Your task to perform on an android device: open chrome privacy settings Image 0: 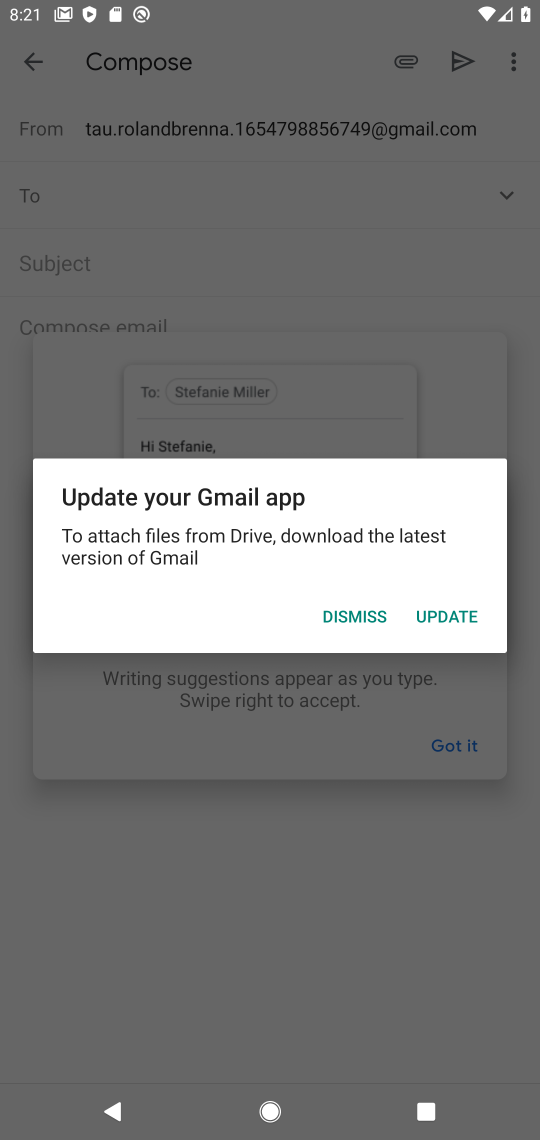
Step 0: press back button
Your task to perform on an android device: open chrome privacy settings Image 1: 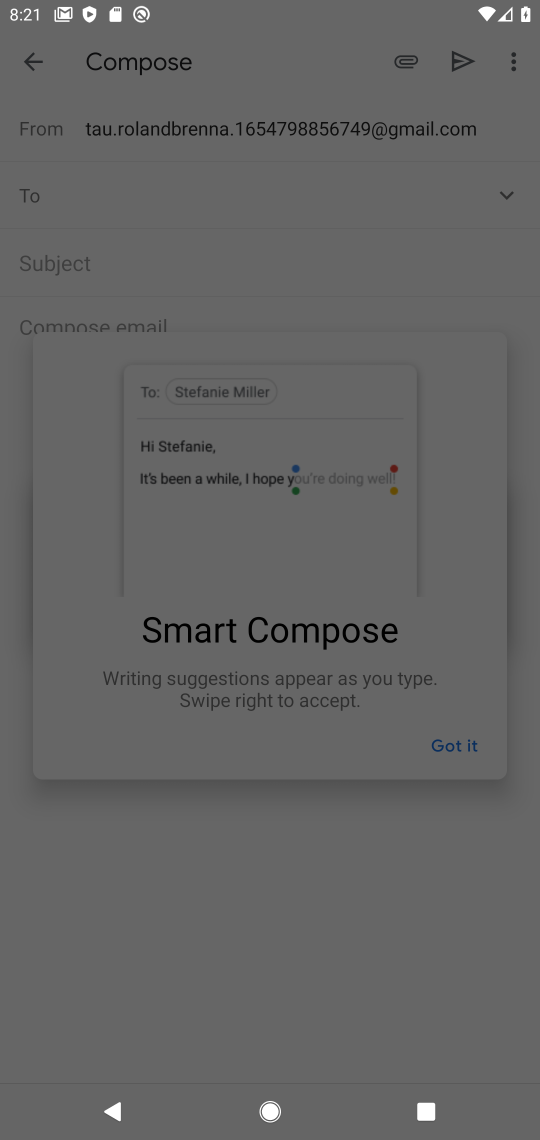
Step 1: press home button
Your task to perform on an android device: open chrome privacy settings Image 2: 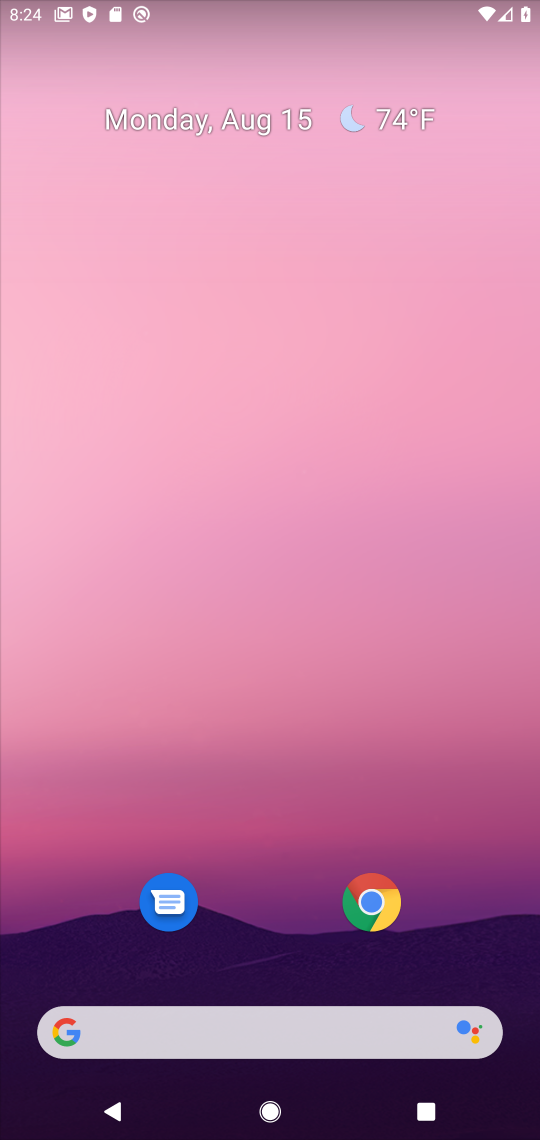
Step 2: drag from (522, 960) to (192, 41)
Your task to perform on an android device: open chrome privacy settings Image 3: 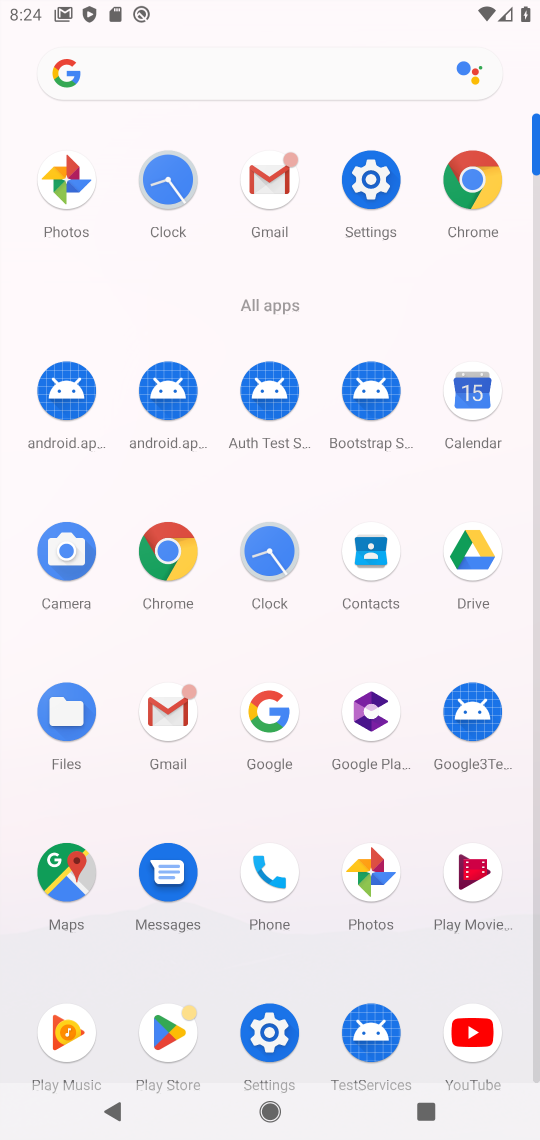
Step 3: click (173, 550)
Your task to perform on an android device: open chrome privacy settings Image 4: 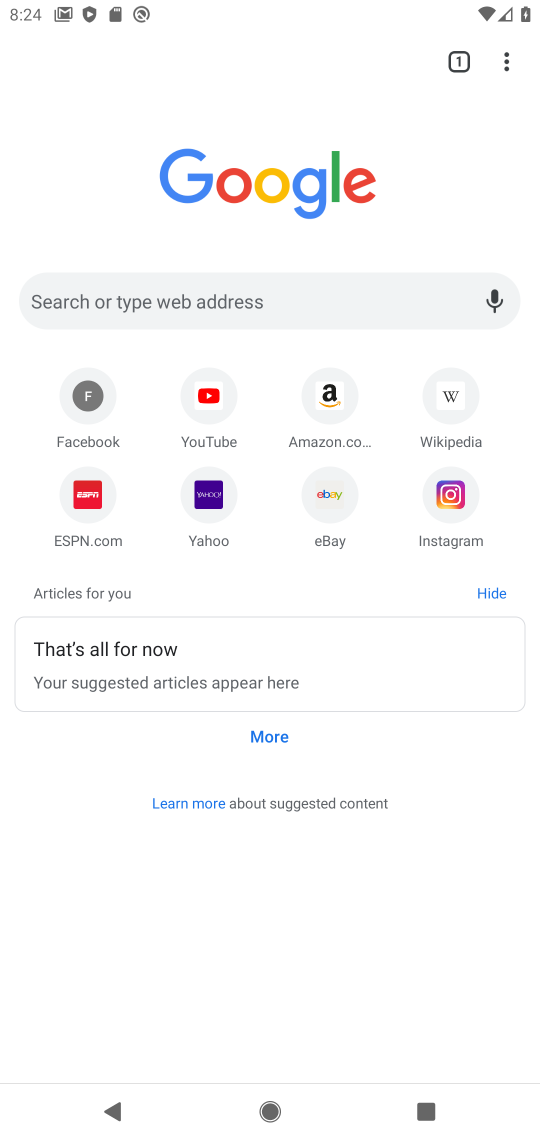
Step 4: click (501, 58)
Your task to perform on an android device: open chrome privacy settings Image 5: 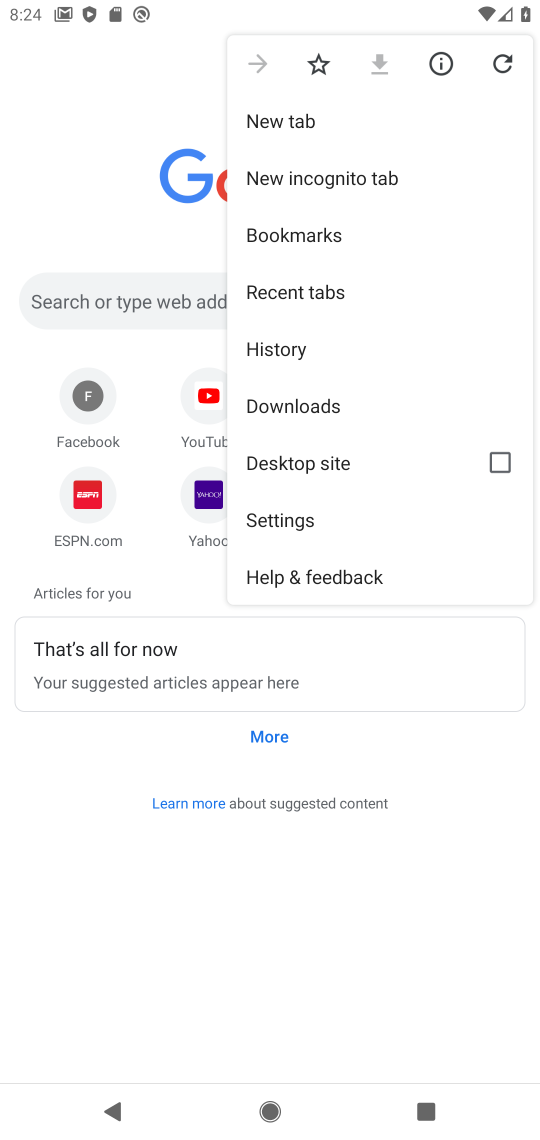
Step 5: click (280, 528)
Your task to perform on an android device: open chrome privacy settings Image 6: 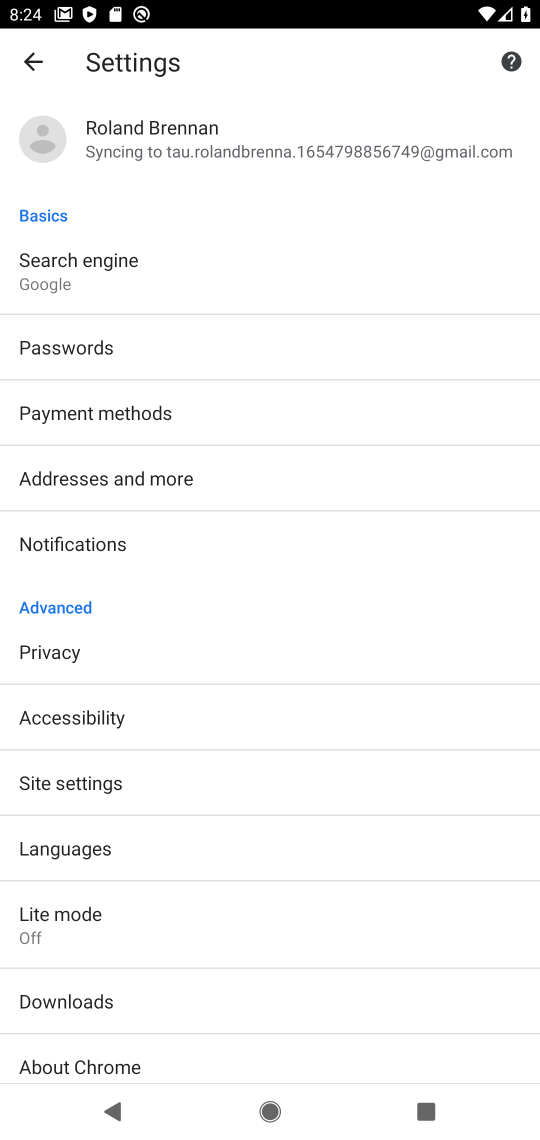
Step 6: click (29, 657)
Your task to perform on an android device: open chrome privacy settings Image 7: 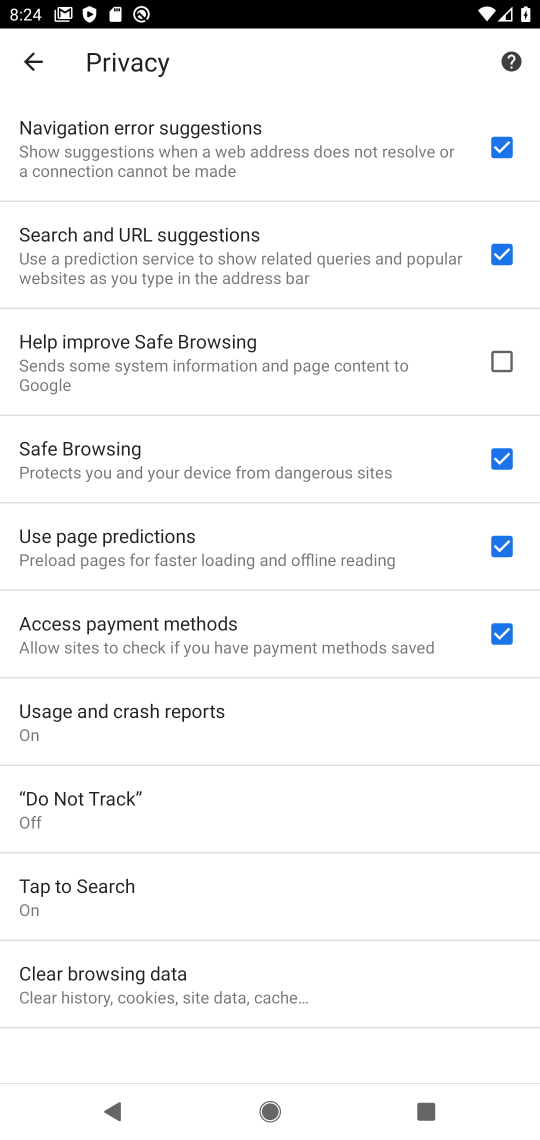
Step 7: task complete